Your task to perform on an android device: turn on translation in the chrome app Image 0: 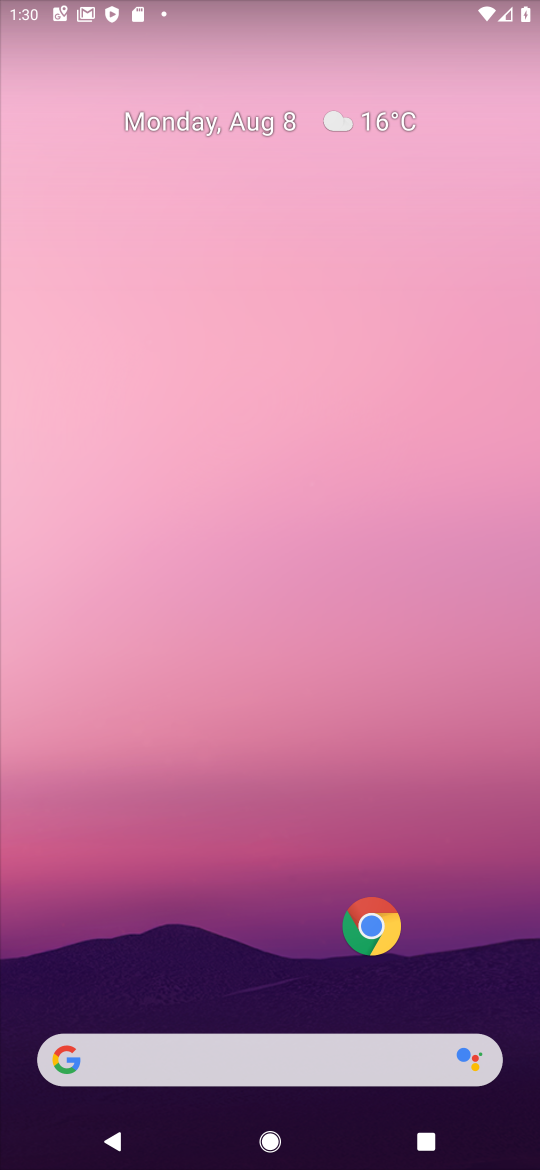
Step 0: press home button
Your task to perform on an android device: turn on translation in the chrome app Image 1: 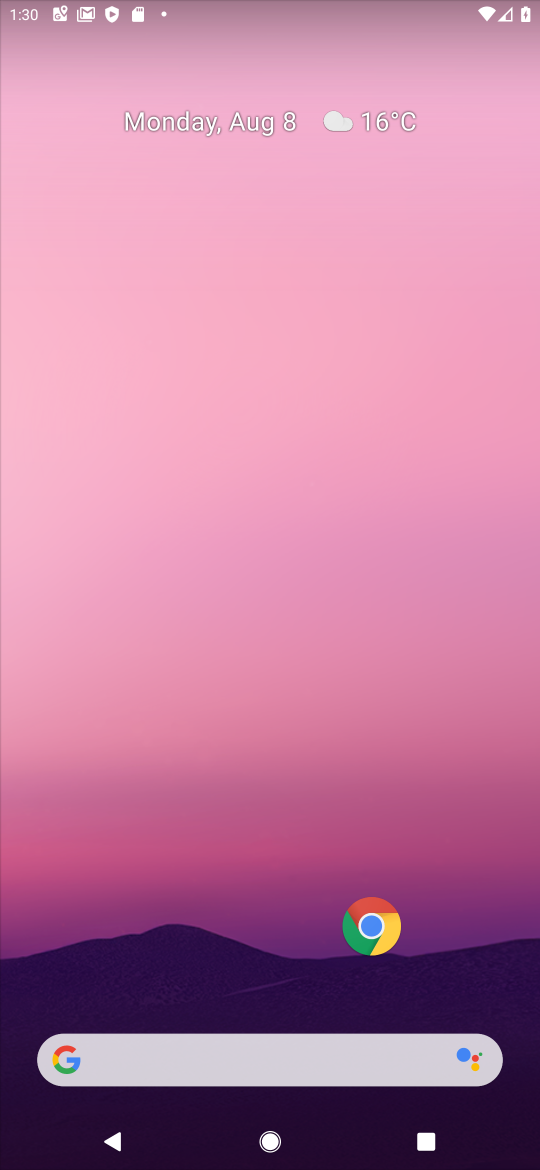
Step 1: drag from (224, 1040) to (261, 239)
Your task to perform on an android device: turn on translation in the chrome app Image 2: 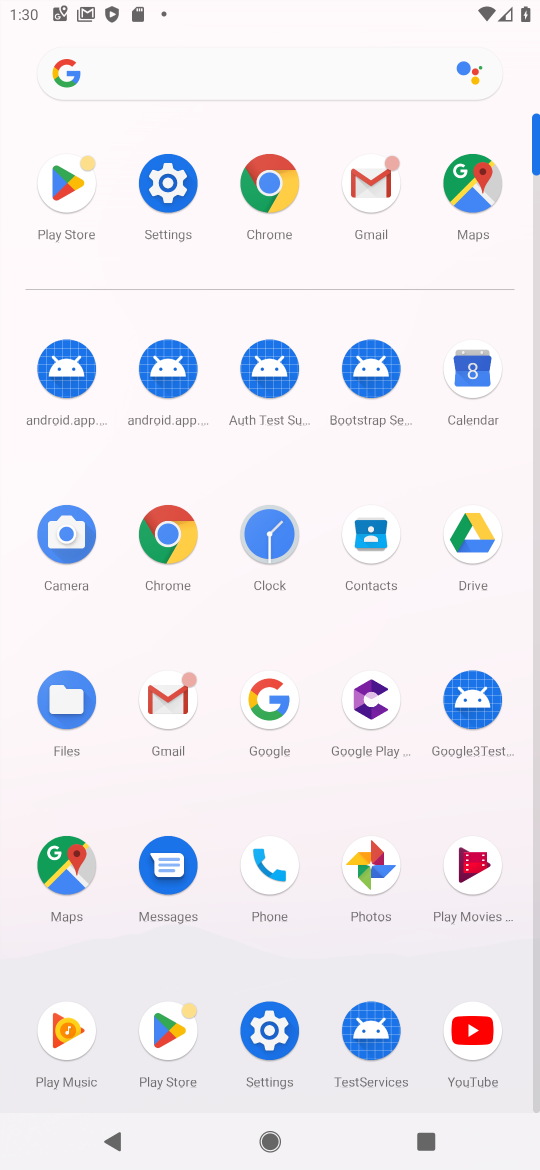
Step 2: click (275, 183)
Your task to perform on an android device: turn on translation in the chrome app Image 3: 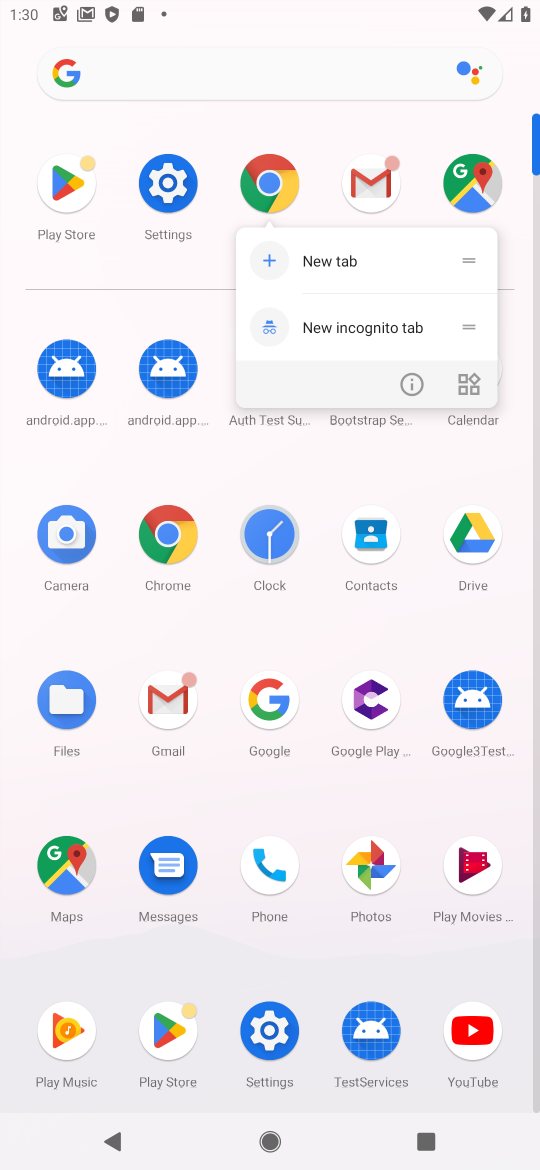
Step 3: click (281, 180)
Your task to perform on an android device: turn on translation in the chrome app Image 4: 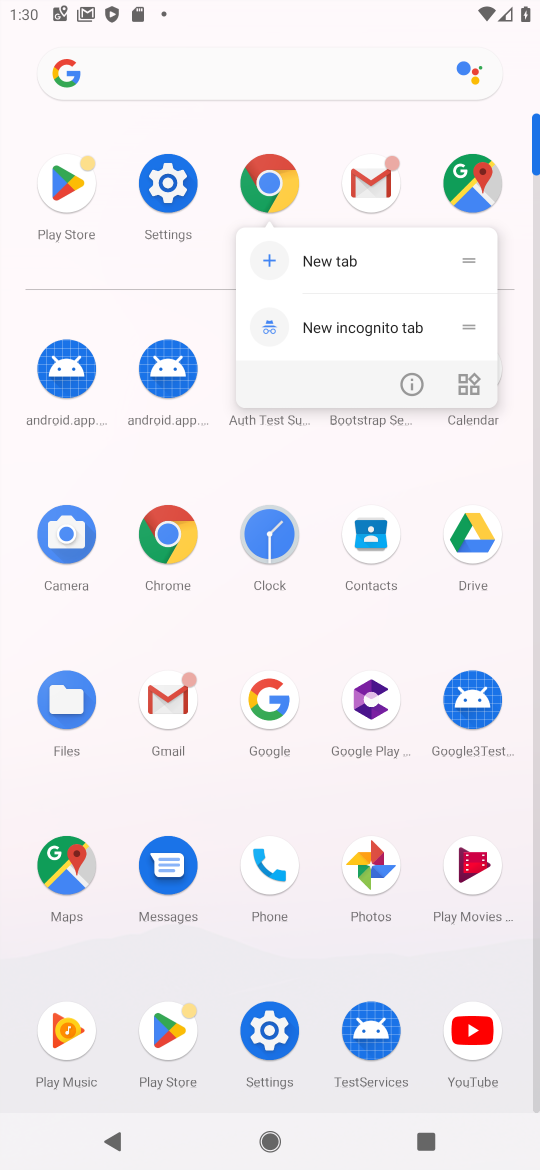
Step 4: click (261, 175)
Your task to perform on an android device: turn on translation in the chrome app Image 5: 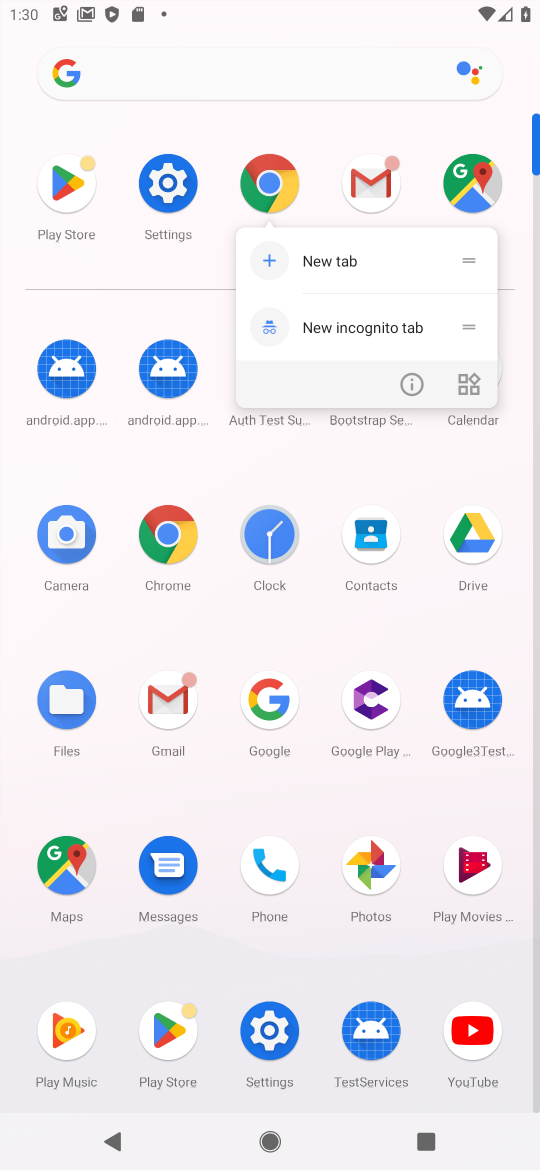
Step 5: click (267, 186)
Your task to perform on an android device: turn on translation in the chrome app Image 6: 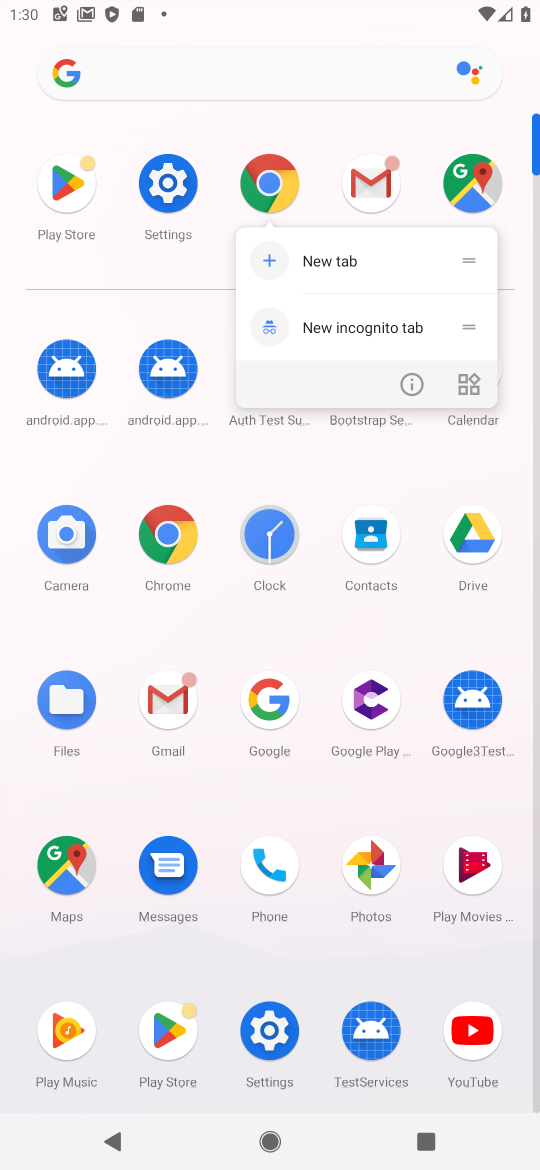
Step 6: click (283, 183)
Your task to perform on an android device: turn on translation in the chrome app Image 7: 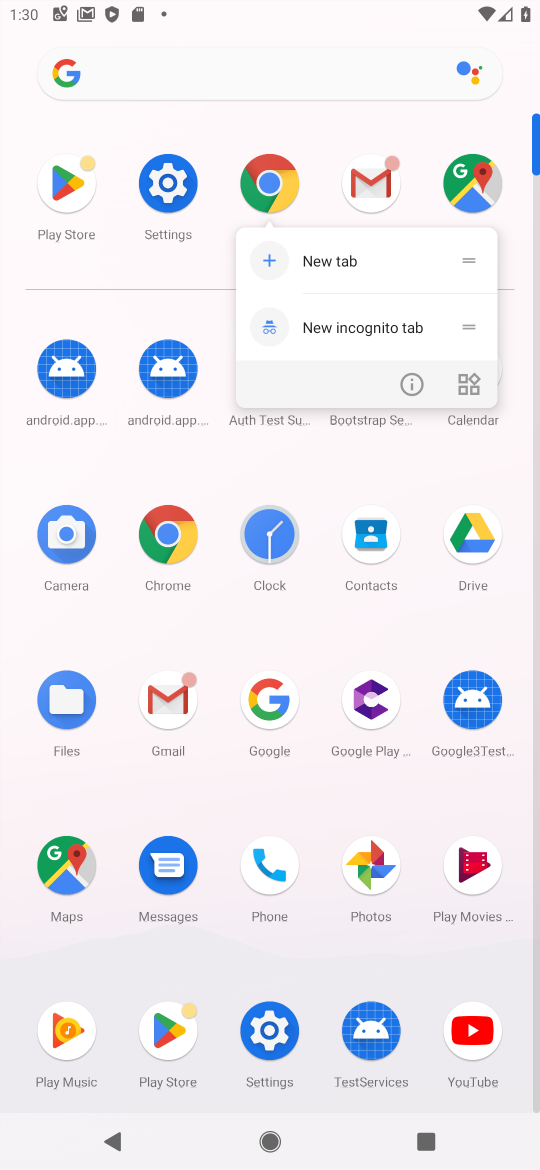
Step 7: click (283, 183)
Your task to perform on an android device: turn on translation in the chrome app Image 8: 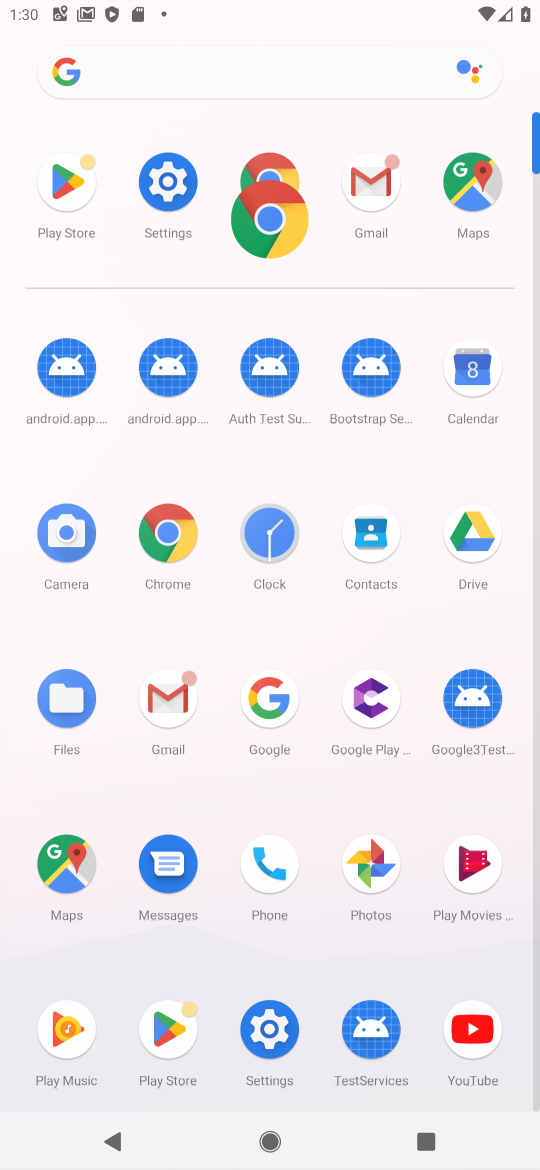
Step 8: click (283, 183)
Your task to perform on an android device: turn on translation in the chrome app Image 9: 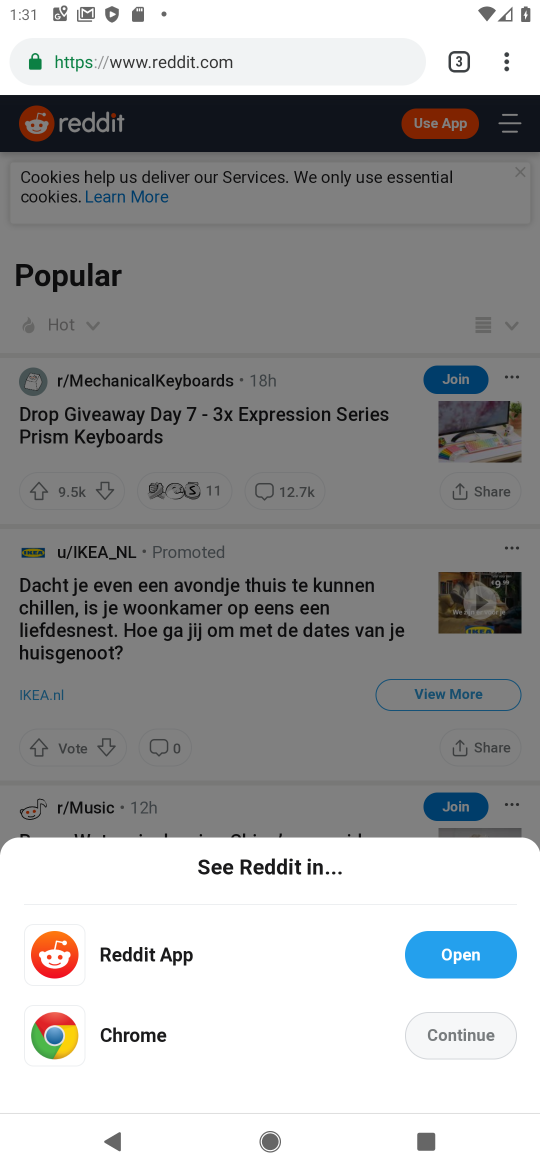
Step 9: click (520, 63)
Your task to perform on an android device: turn on translation in the chrome app Image 10: 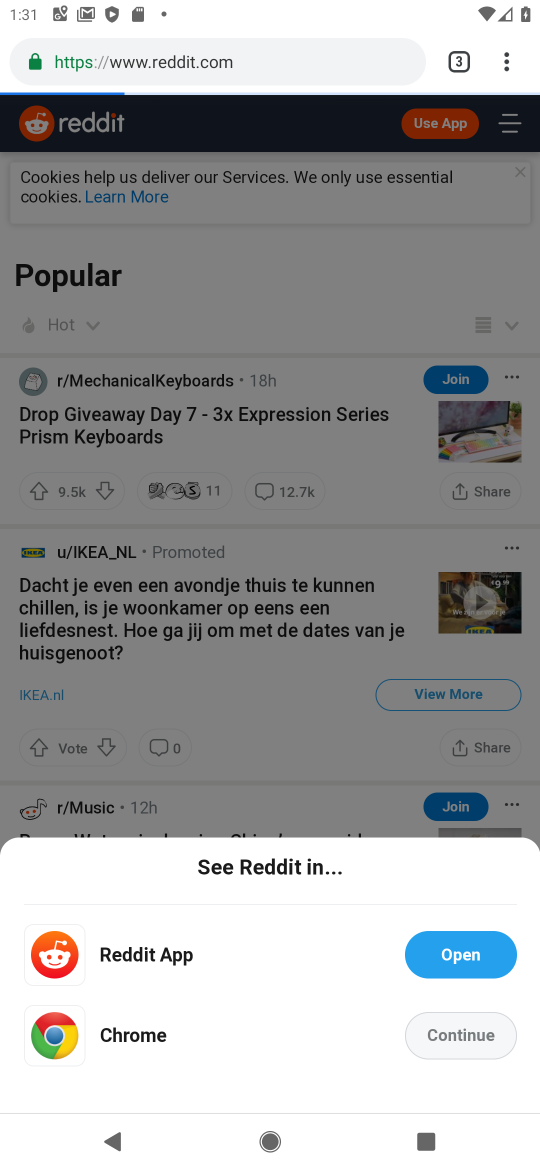
Step 10: click (505, 58)
Your task to perform on an android device: turn on translation in the chrome app Image 11: 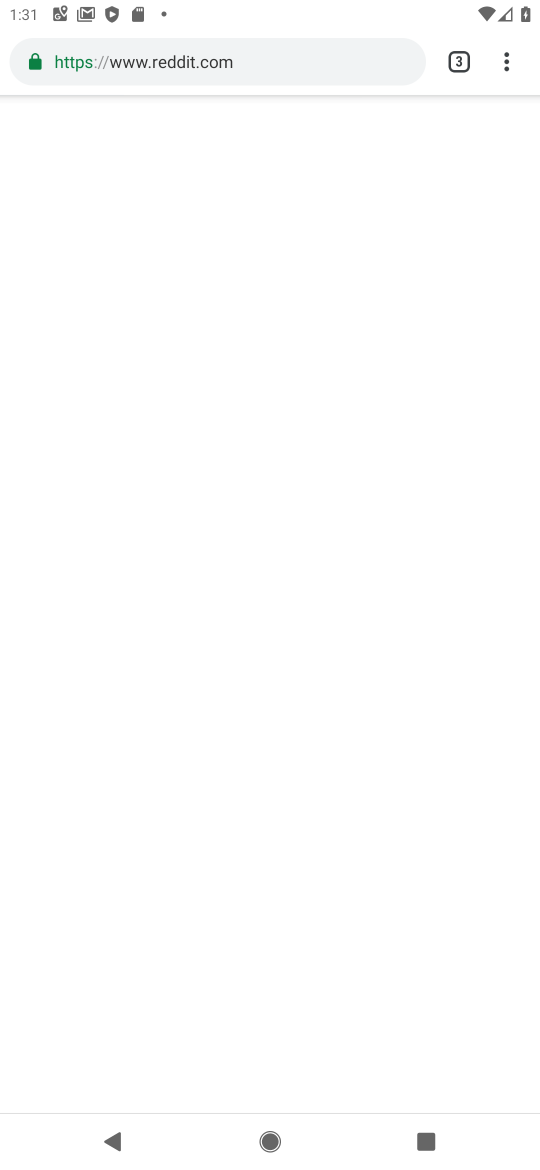
Step 11: click (505, 58)
Your task to perform on an android device: turn on translation in the chrome app Image 12: 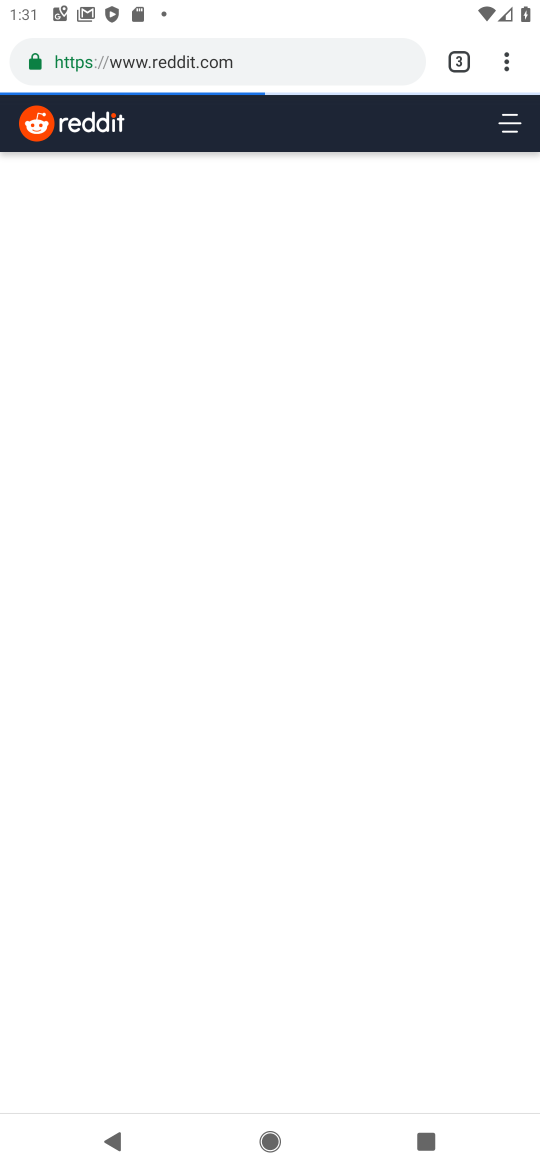
Step 12: click (505, 58)
Your task to perform on an android device: turn on translation in the chrome app Image 13: 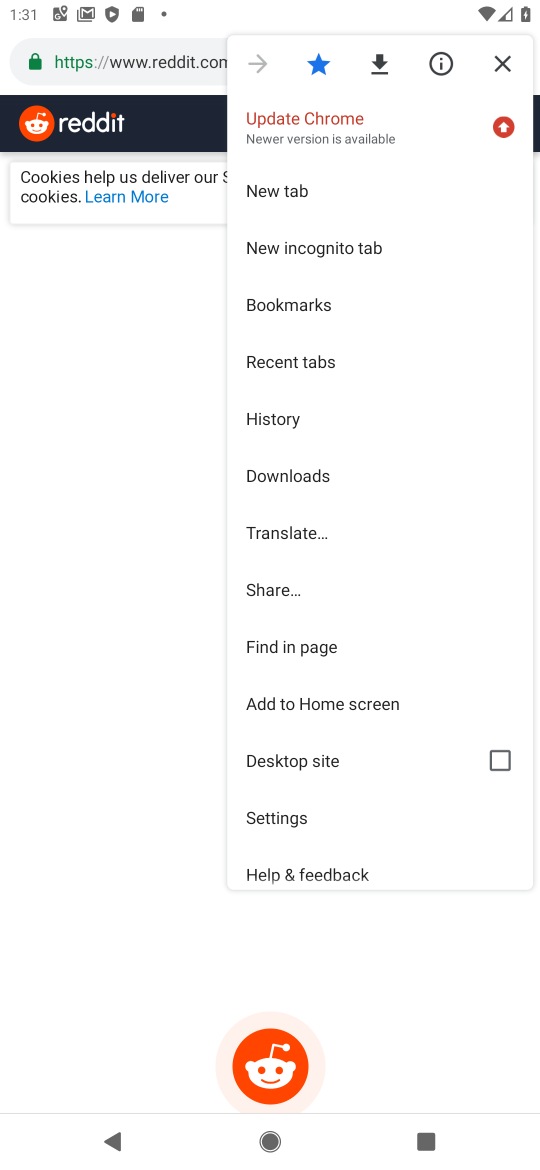
Step 13: click (310, 818)
Your task to perform on an android device: turn on translation in the chrome app Image 14: 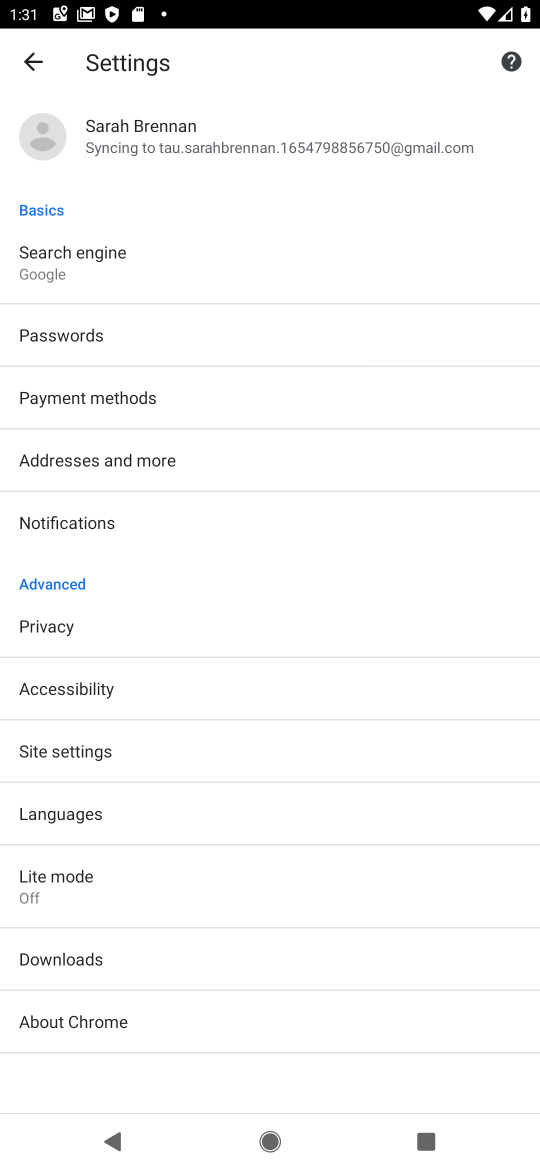
Step 14: drag from (219, 888) to (337, 347)
Your task to perform on an android device: turn on translation in the chrome app Image 15: 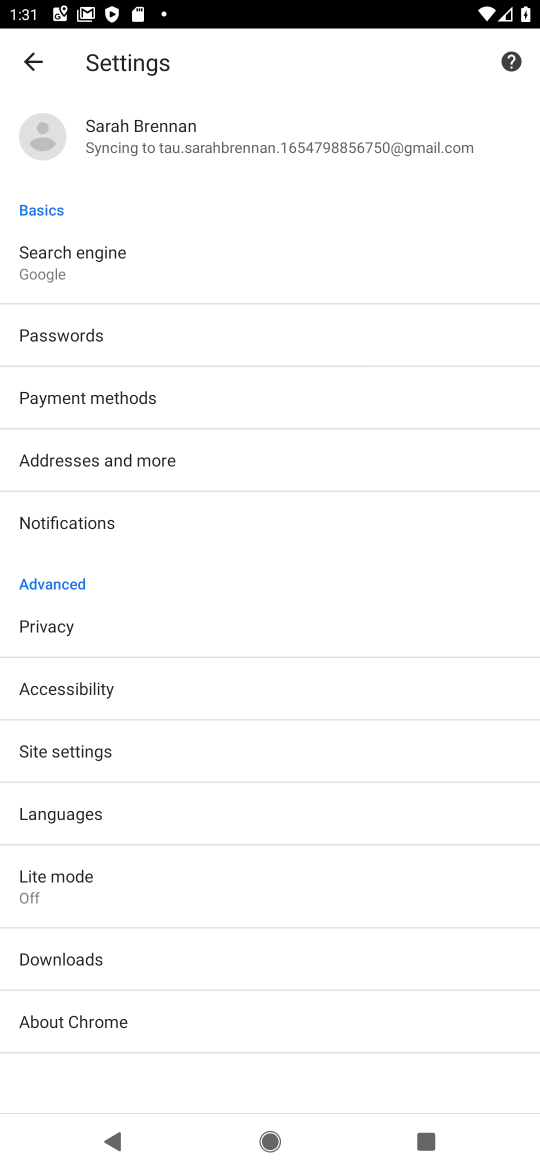
Step 15: click (166, 898)
Your task to perform on an android device: turn on translation in the chrome app Image 16: 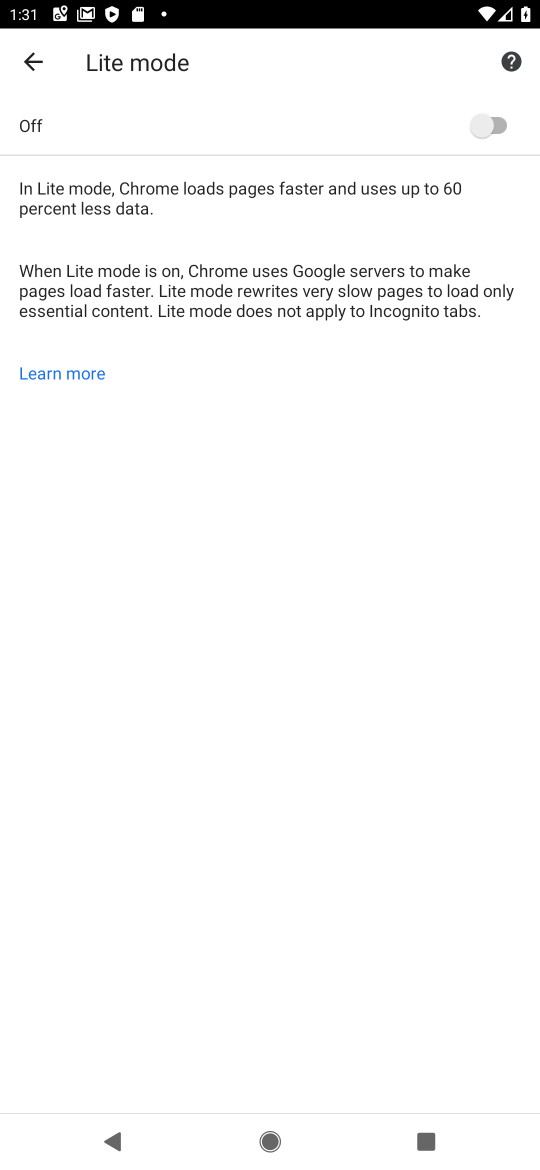
Step 16: click (488, 120)
Your task to perform on an android device: turn on translation in the chrome app Image 17: 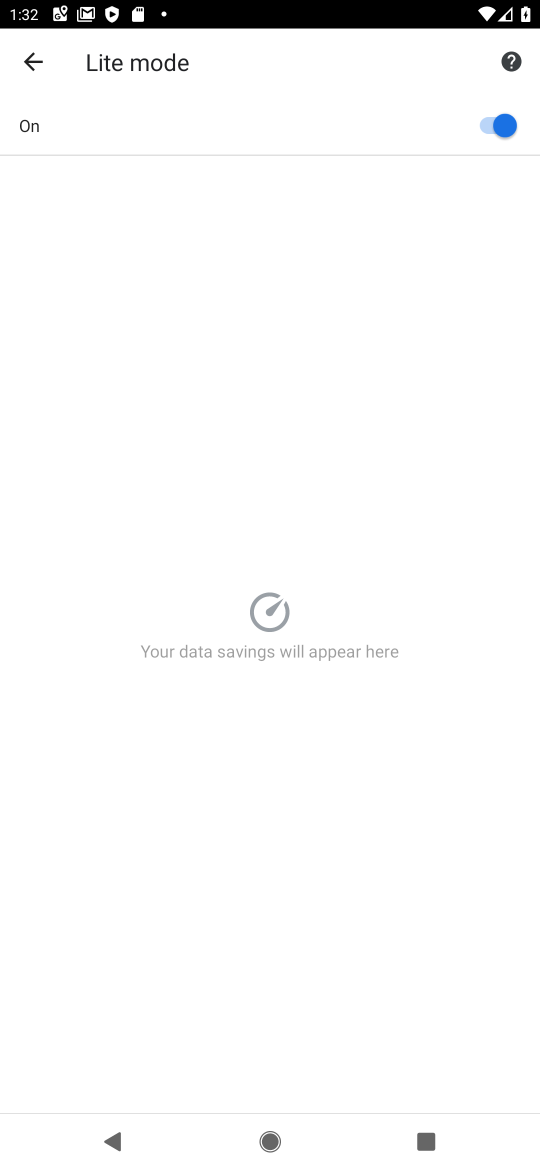
Step 17: click (22, 57)
Your task to perform on an android device: turn on translation in the chrome app Image 18: 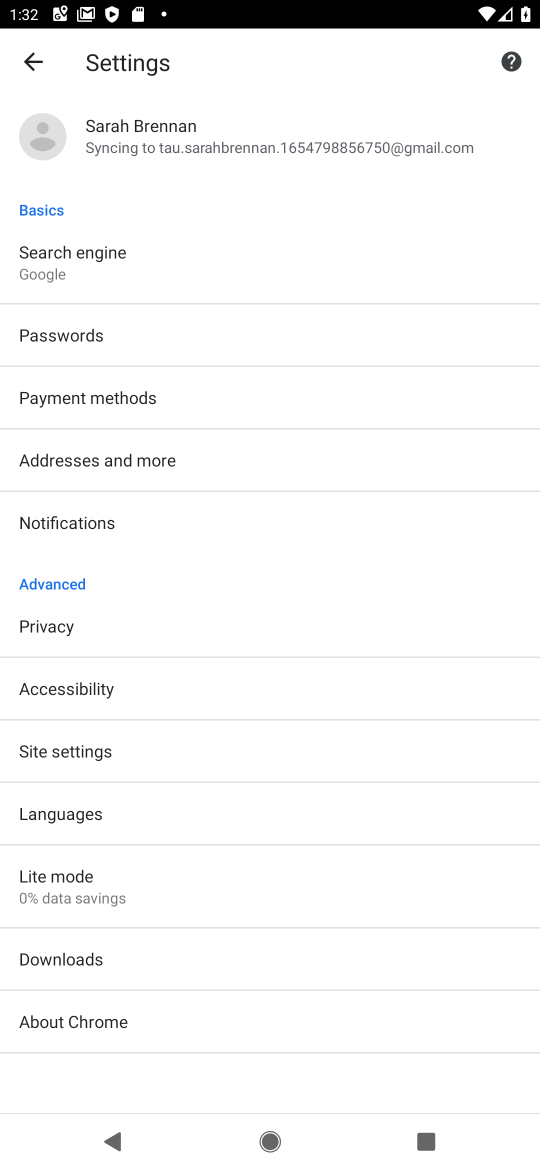
Step 18: click (181, 740)
Your task to perform on an android device: turn on translation in the chrome app Image 19: 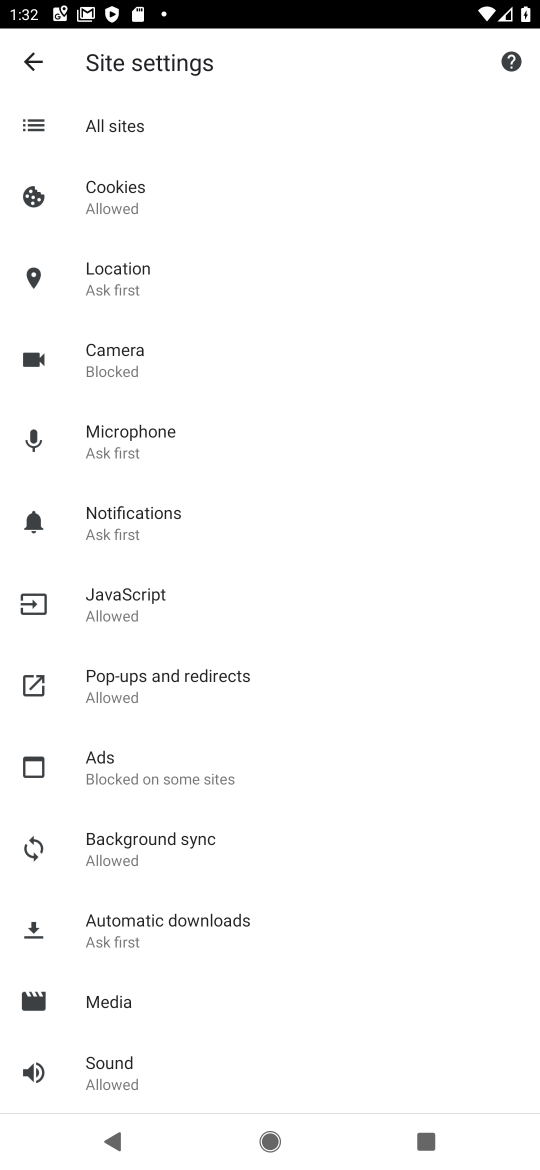
Step 19: click (161, 274)
Your task to perform on an android device: turn on translation in the chrome app Image 20: 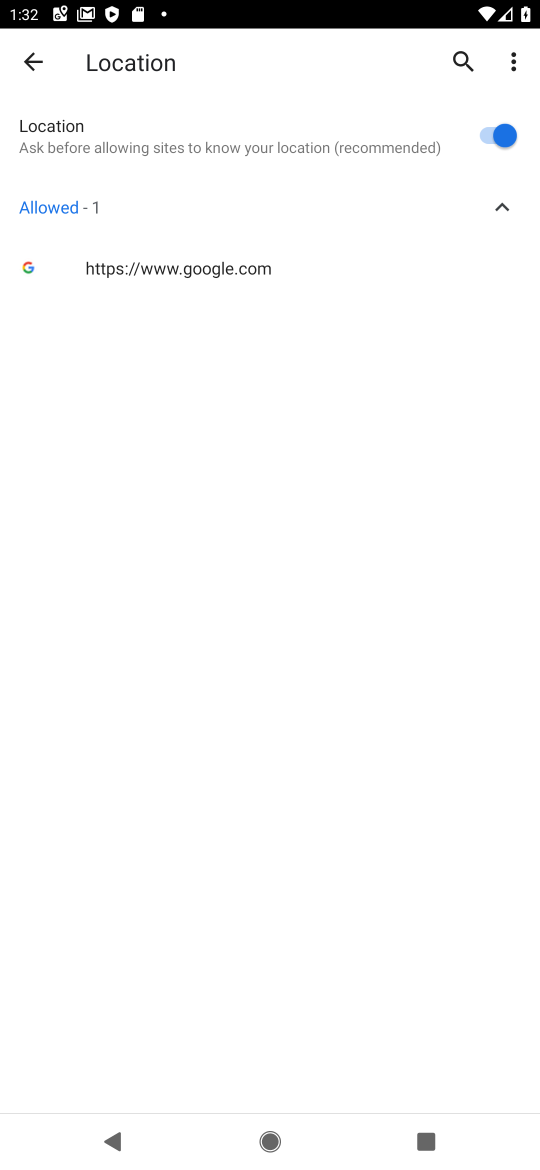
Step 20: click (28, 70)
Your task to perform on an android device: turn on translation in the chrome app Image 21: 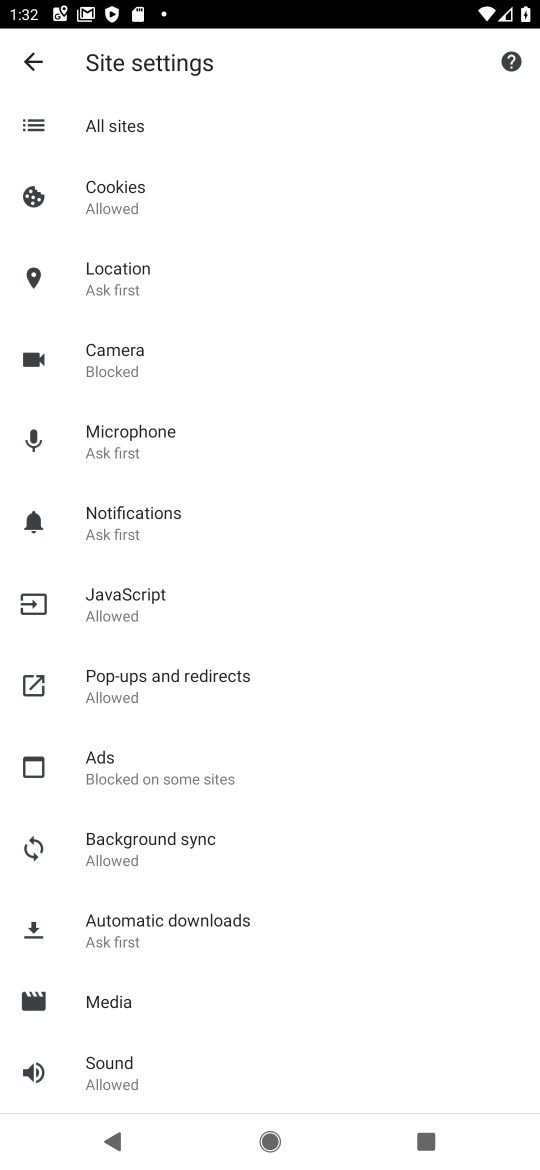
Step 21: drag from (191, 910) to (256, 297)
Your task to perform on an android device: turn on translation in the chrome app Image 22: 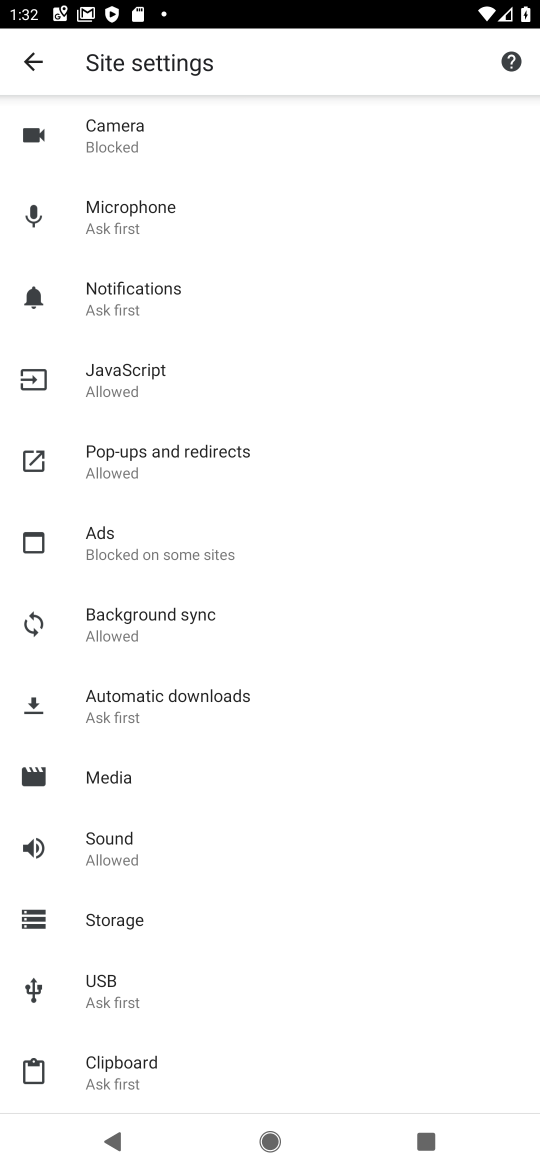
Step 22: click (46, 48)
Your task to perform on an android device: turn on translation in the chrome app Image 23: 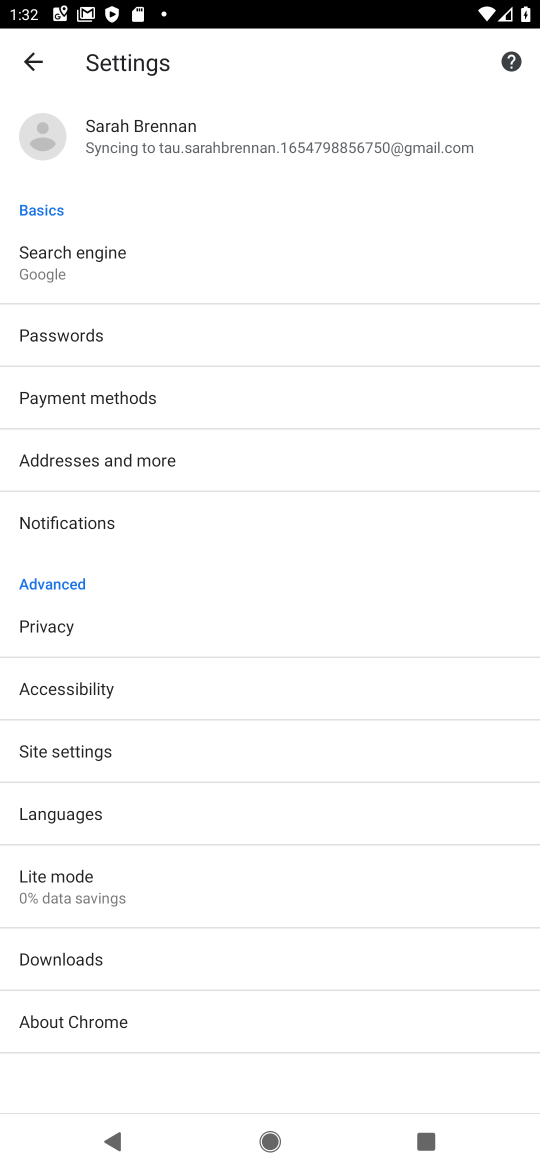
Step 23: click (144, 813)
Your task to perform on an android device: turn on translation in the chrome app Image 24: 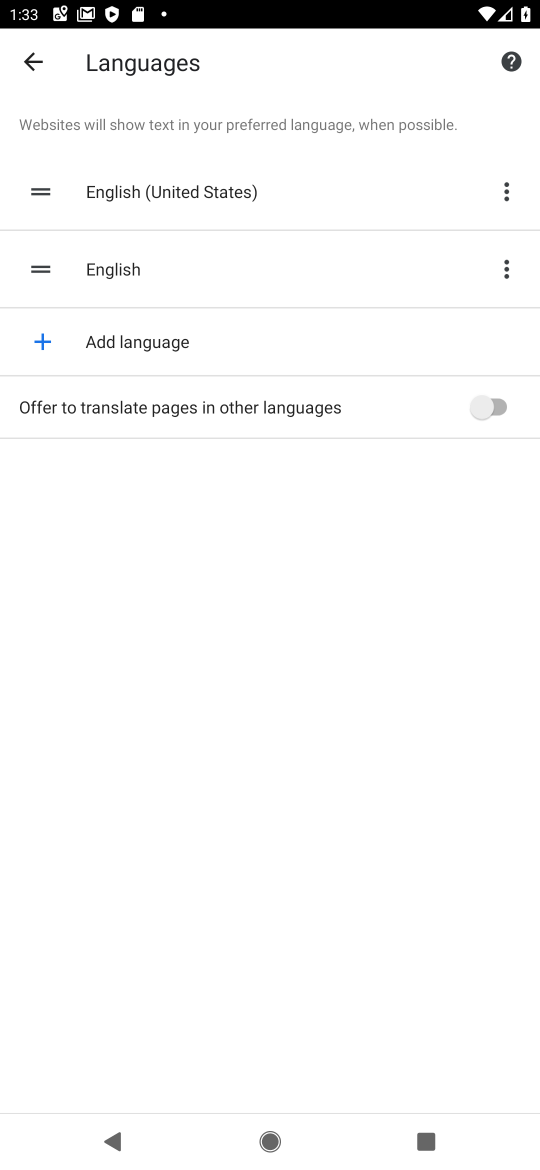
Step 24: click (495, 409)
Your task to perform on an android device: turn on translation in the chrome app Image 25: 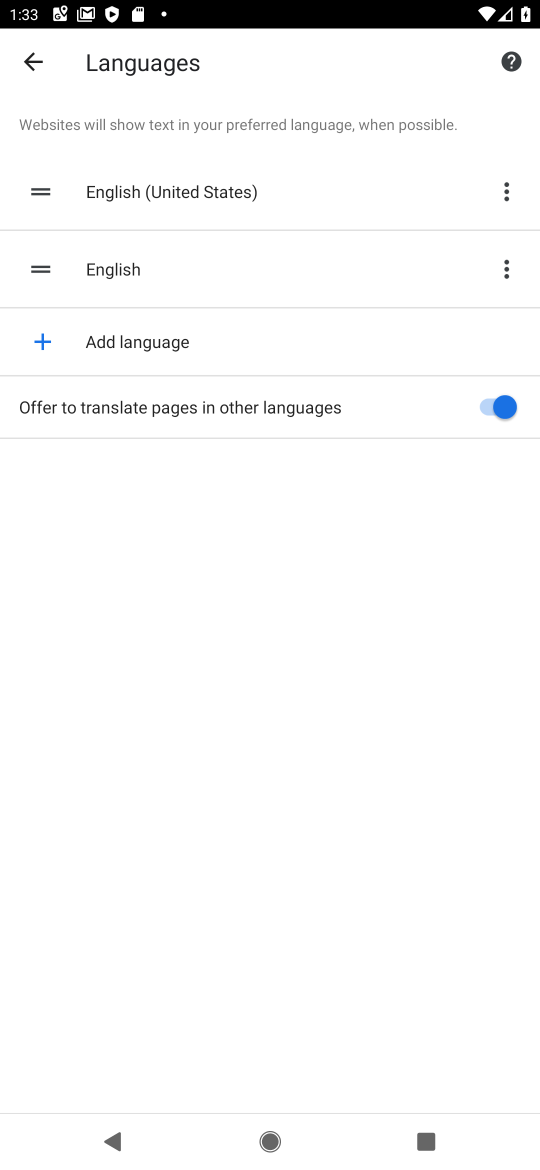
Step 25: task complete